Your task to perform on an android device: turn pop-ups off in chrome Image 0: 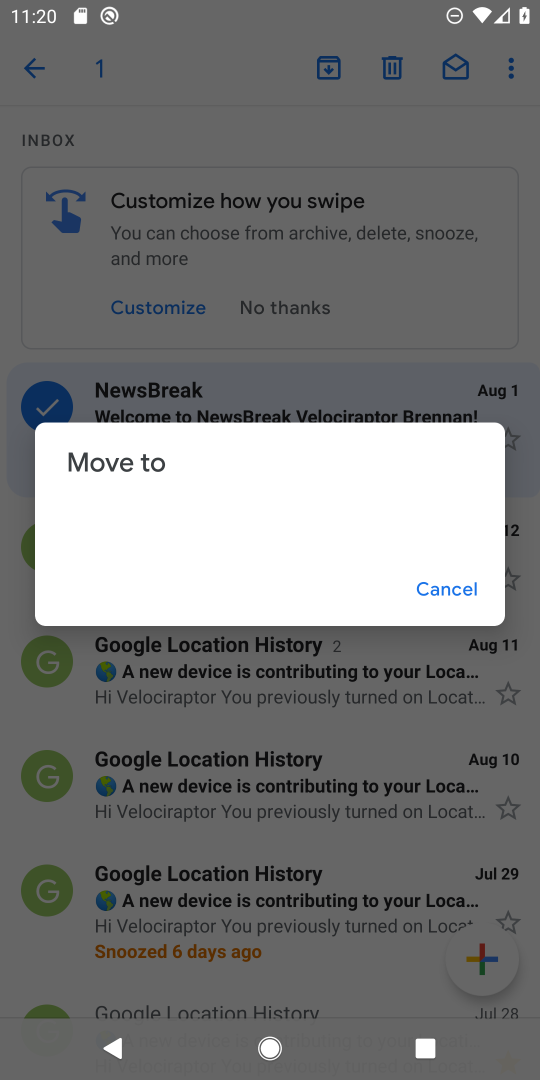
Step 0: click (442, 580)
Your task to perform on an android device: turn pop-ups off in chrome Image 1: 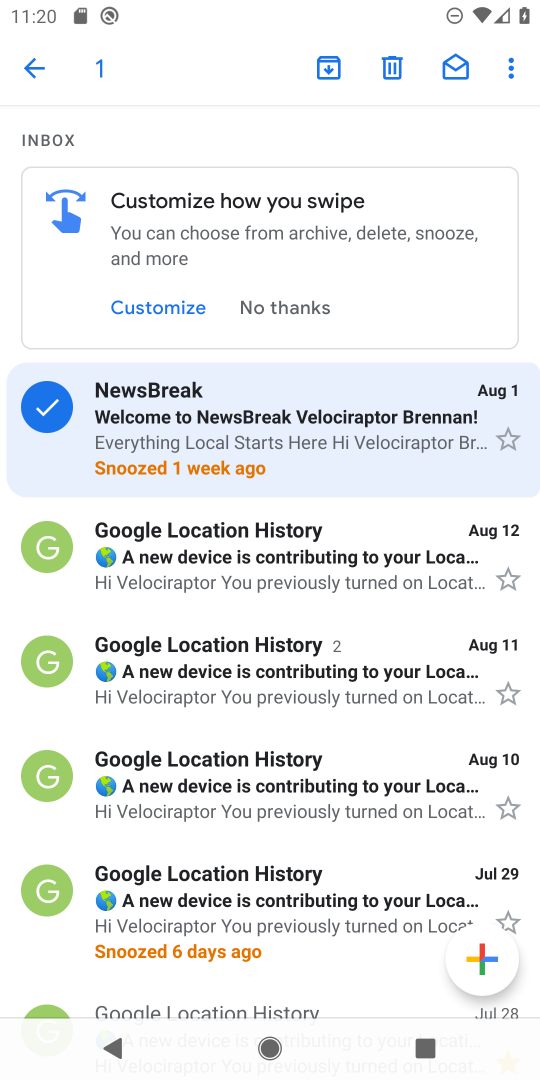
Step 1: drag from (206, 949) to (276, 827)
Your task to perform on an android device: turn pop-ups off in chrome Image 2: 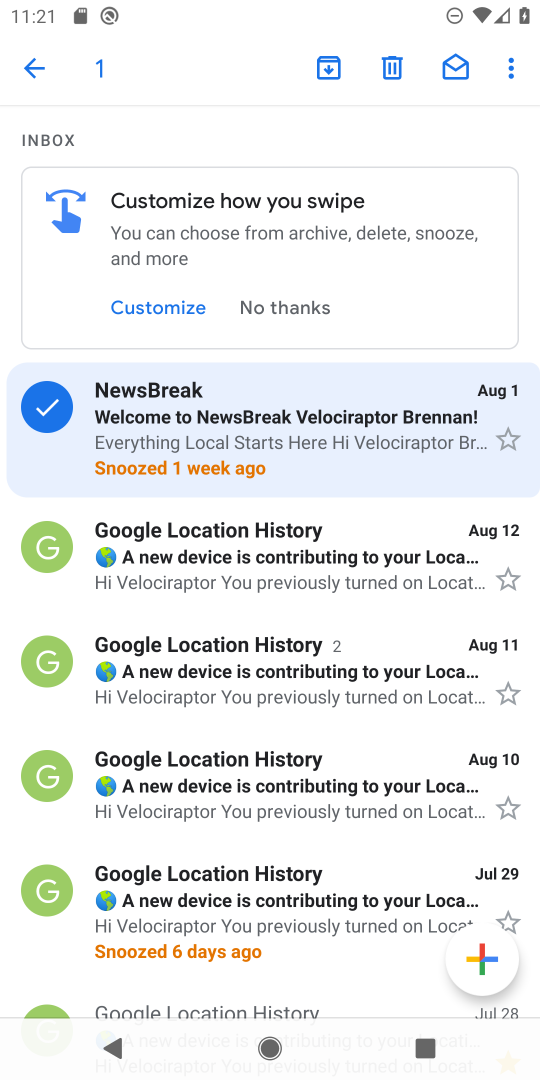
Step 2: press back button
Your task to perform on an android device: turn pop-ups off in chrome Image 3: 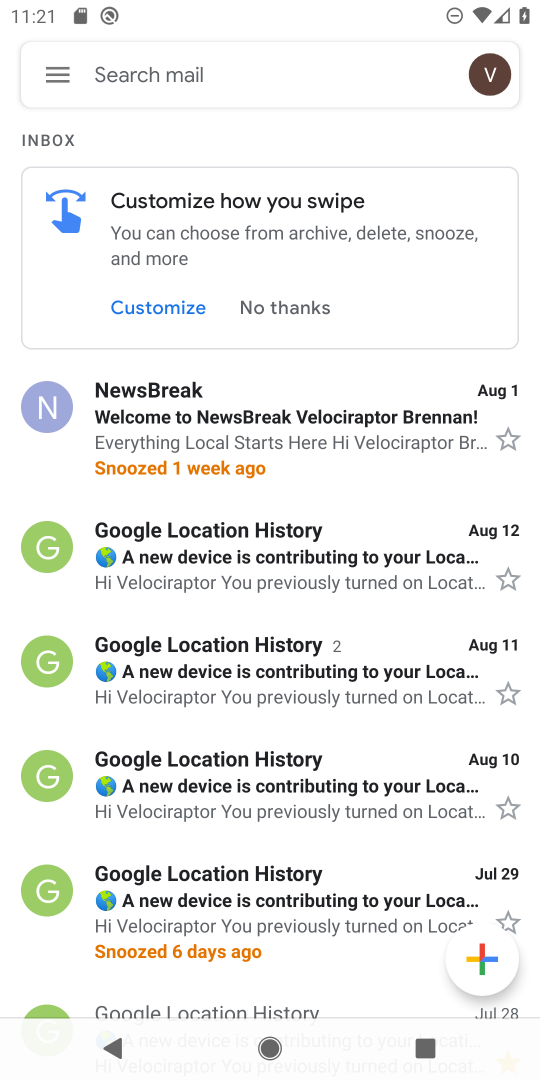
Step 3: press back button
Your task to perform on an android device: turn pop-ups off in chrome Image 4: 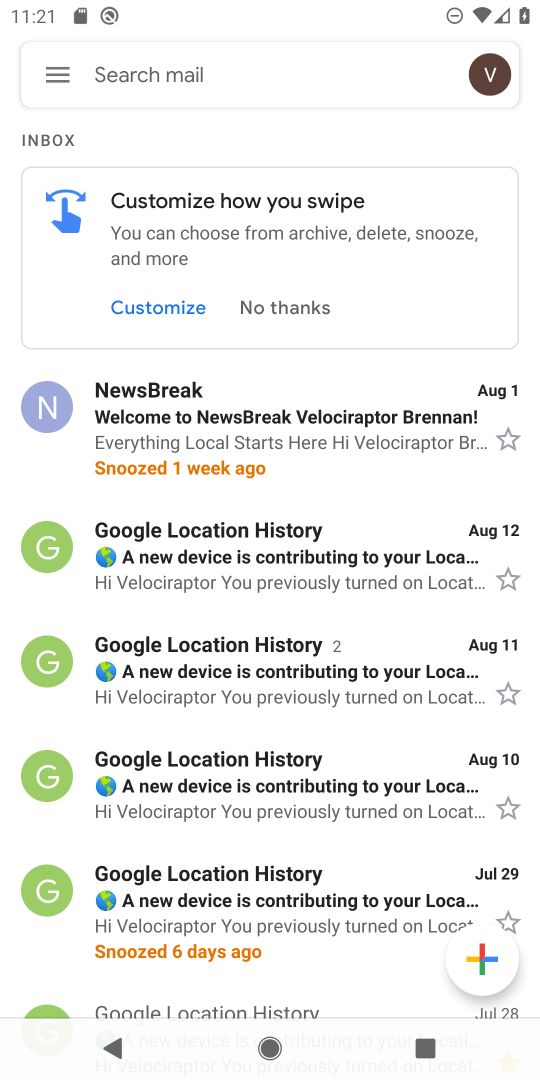
Step 4: press back button
Your task to perform on an android device: turn pop-ups off in chrome Image 5: 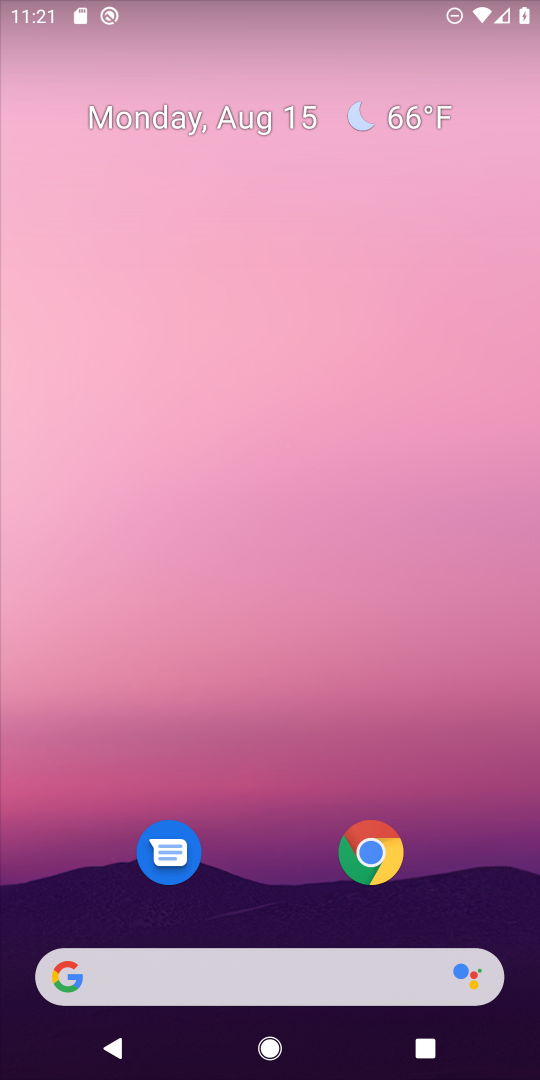
Step 5: click (379, 845)
Your task to perform on an android device: turn pop-ups off in chrome Image 6: 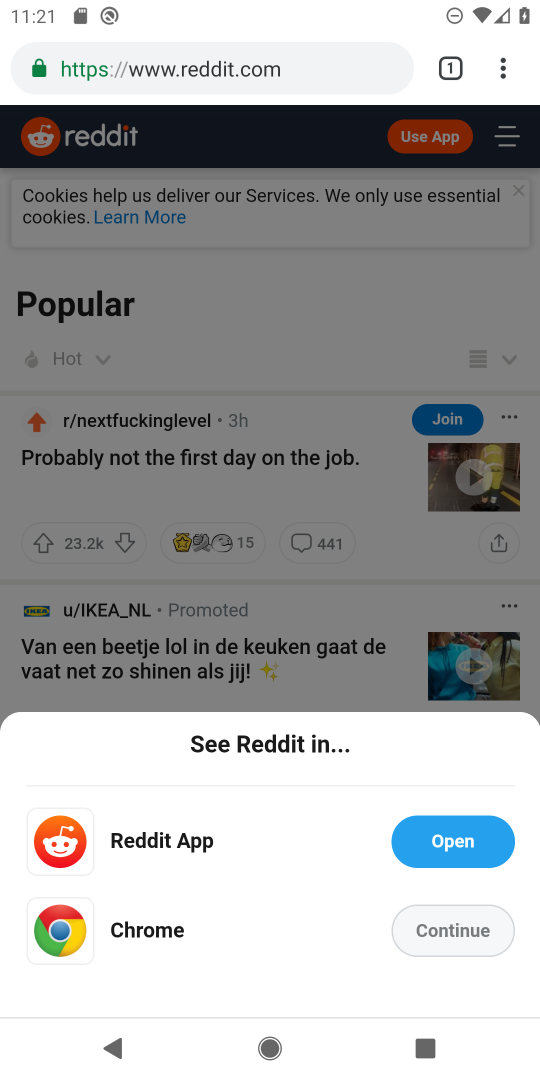
Step 6: drag from (503, 71) to (275, 890)
Your task to perform on an android device: turn pop-ups off in chrome Image 7: 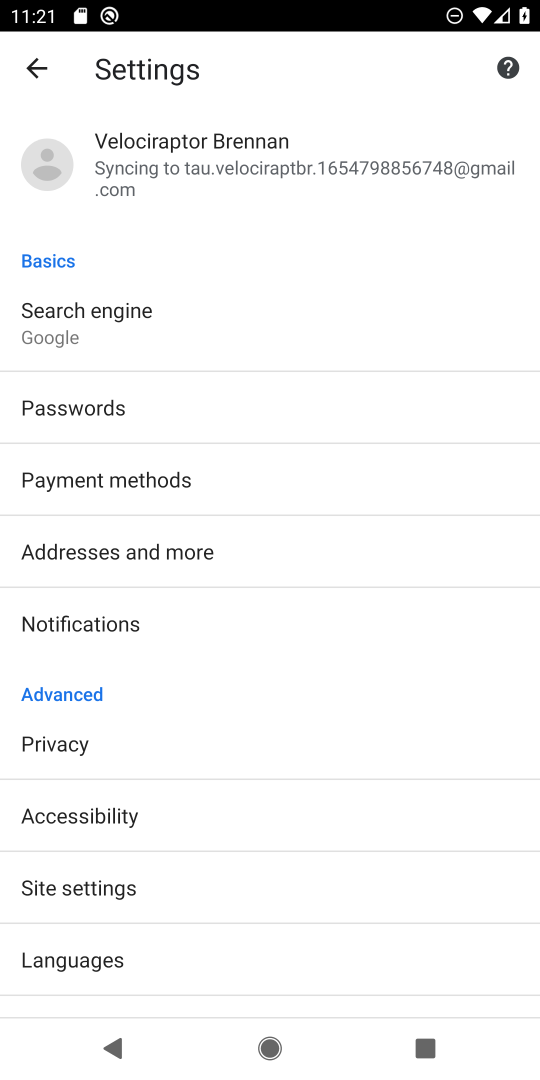
Step 7: click (116, 884)
Your task to perform on an android device: turn pop-ups off in chrome Image 8: 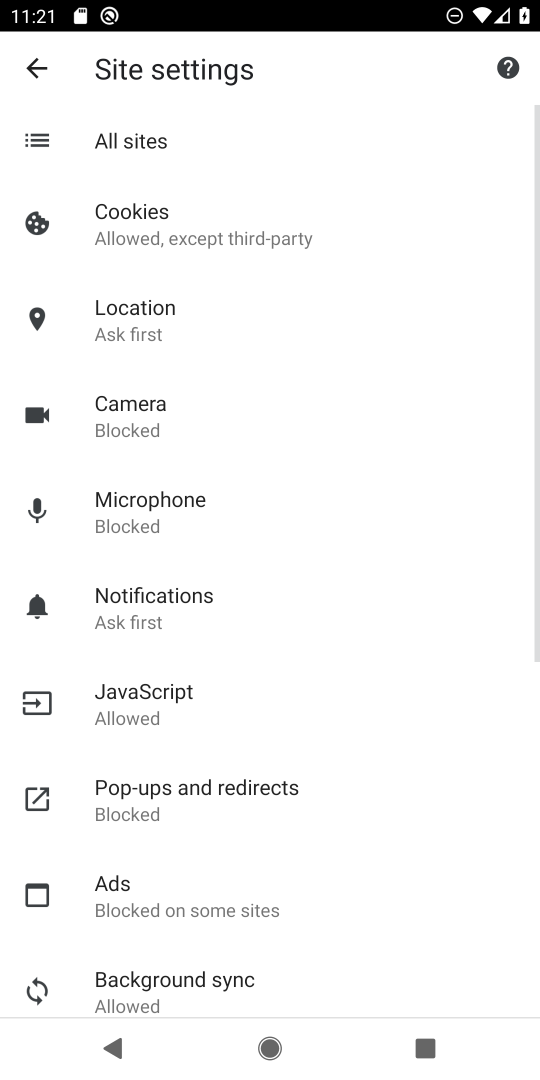
Step 8: click (175, 804)
Your task to perform on an android device: turn pop-ups off in chrome Image 9: 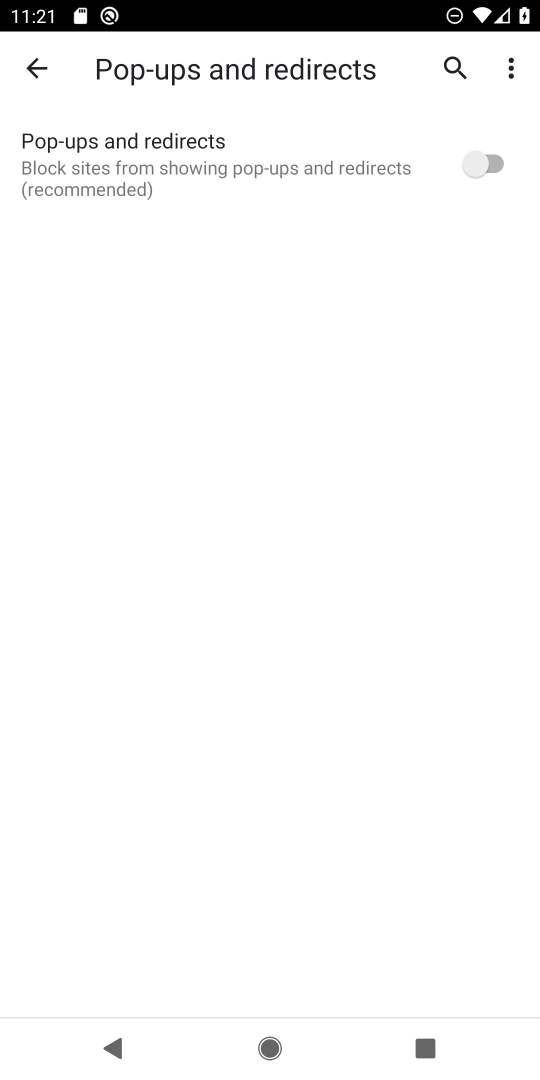
Step 9: task complete